Your task to perform on an android device: What's the weather going to be tomorrow? Image 0: 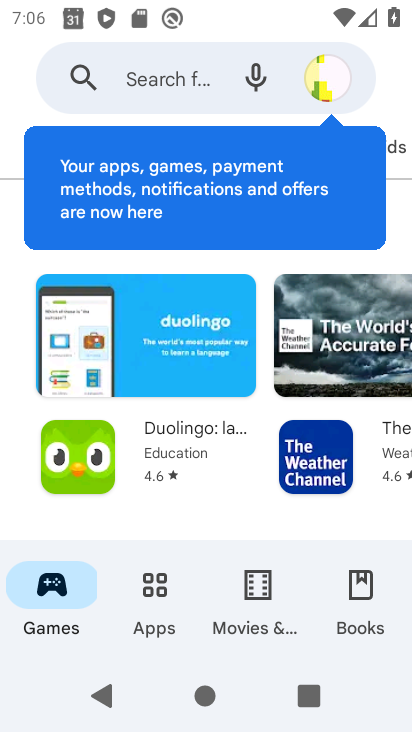
Step 0: press back button
Your task to perform on an android device: What's the weather going to be tomorrow? Image 1: 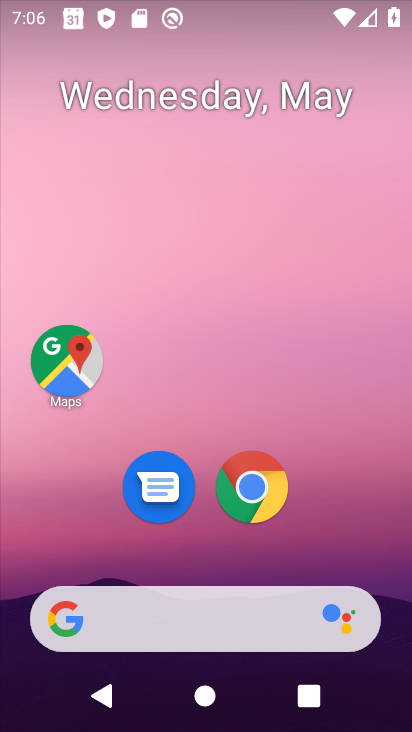
Step 1: drag from (375, 517) to (405, 175)
Your task to perform on an android device: What's the weather going to be tomorrow? Image 2: 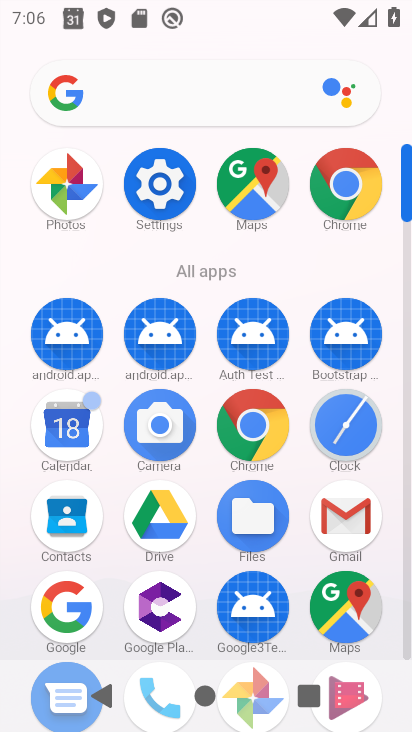
Step 2: press home button
Your task to perform on an android device: What's the weather going to be tomorrow? Image 3: 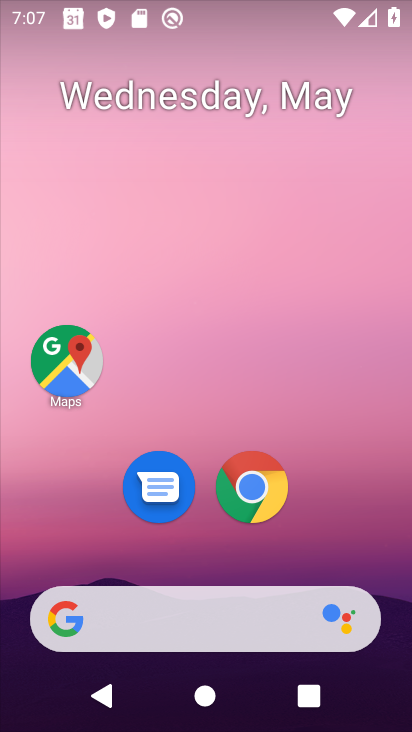
Step 3: drag from (369, 568) to (320, 226)
Your task to perform on an android device: What's the weather going to be tomorrow? Image 4: 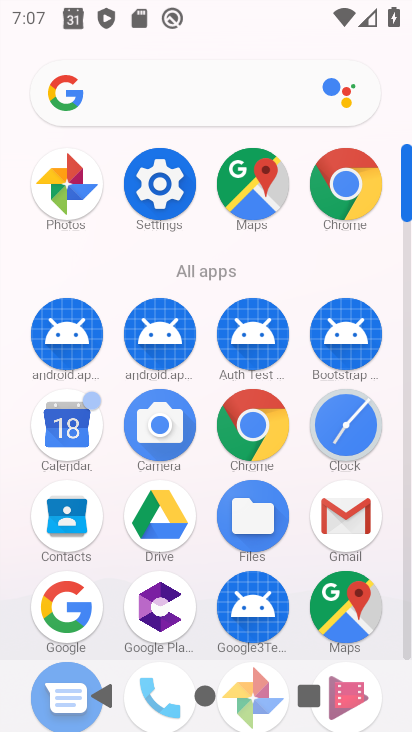
Step 4: click (69, 96)
Your task to perform on an android device: What's the weather going to be tomorrow? Image 5: 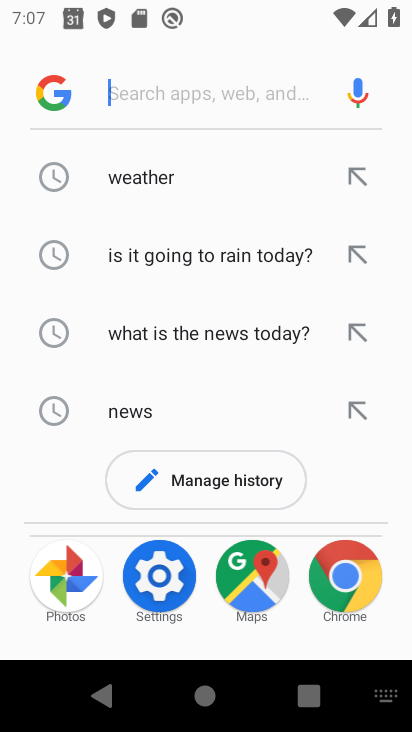
Step 5: click (68, 97)
Your task to perform on an android device: What's the weather going to be tomorrow? Image 6: 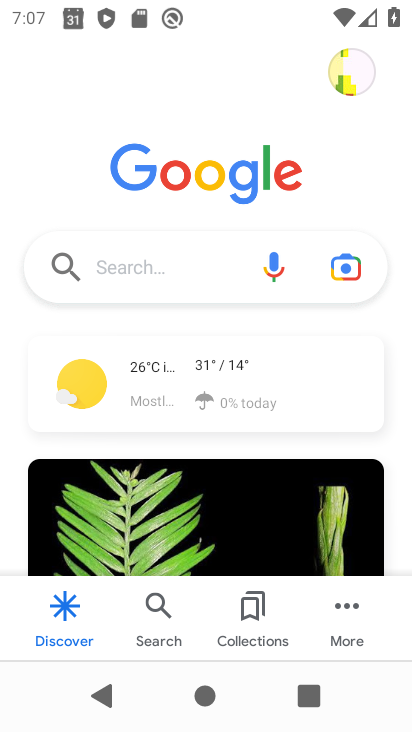
Step 6: click (180, 386)
Your task to perform on an android device: What's the weather going to be tomorrow? Image 7: 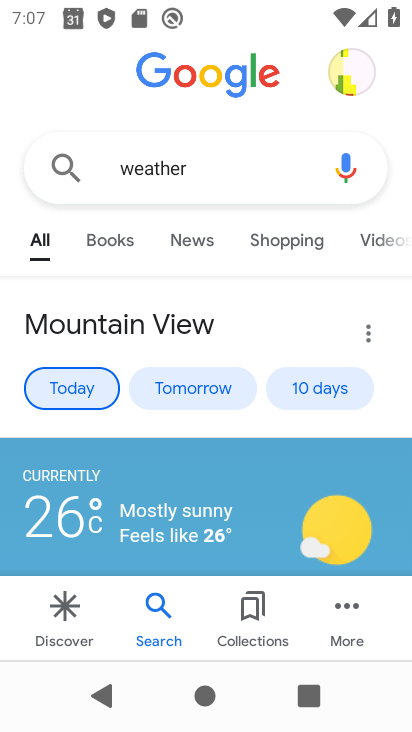
Step 7: click (165, 385)
Your task to perform on an android device: What's the weather going to be tomorrow? Image 8: 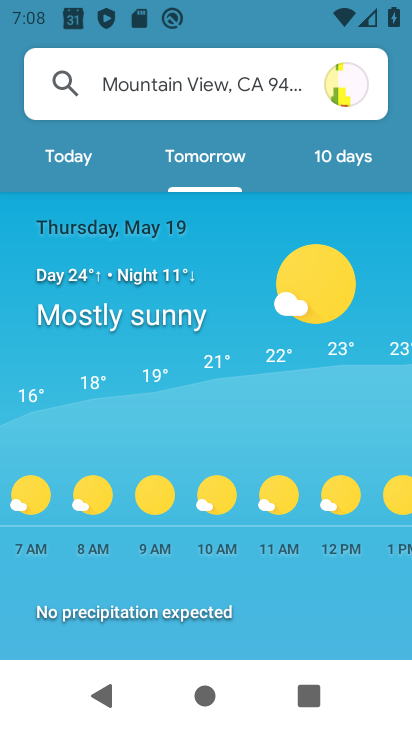
Step 8: task complete